Your task to perform on an android device: Open Reddit.com Image 0: 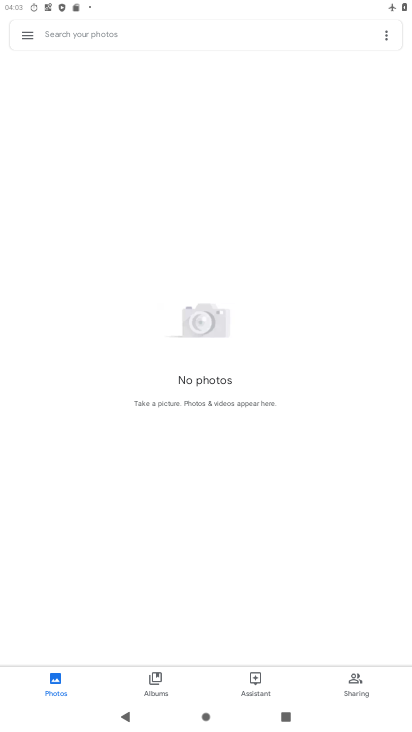
Step 0: press home button
Your task to perform on an android device: Open Reddit.com Image 1: 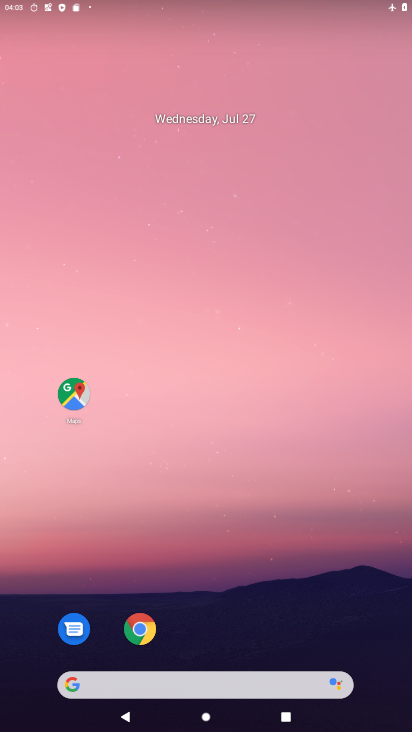
Step 1: drag from (260, 615) to (219, 79)
Your task to perform on an android device: Open Reddit.com Image 2: 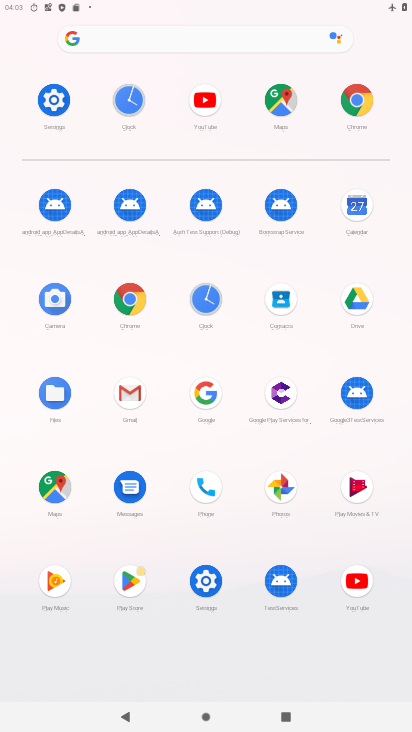
Step 2: click (134, 296)
Your task to perform on an android device: Open Reddit.com Image 3: 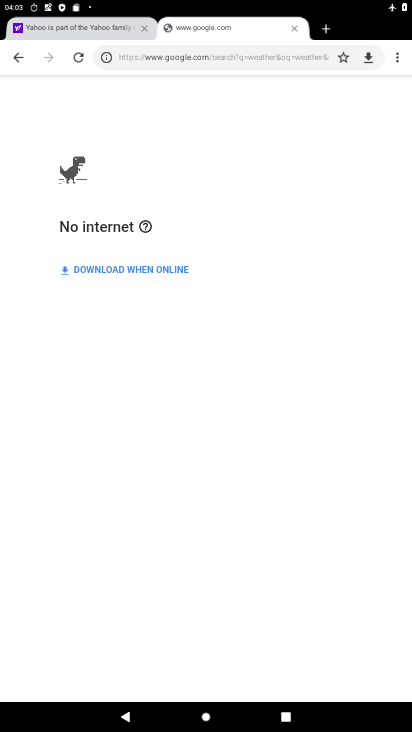
Step 3: click (212, 55)
Your task to perform on an android device: Open Reddit.com Image 4: 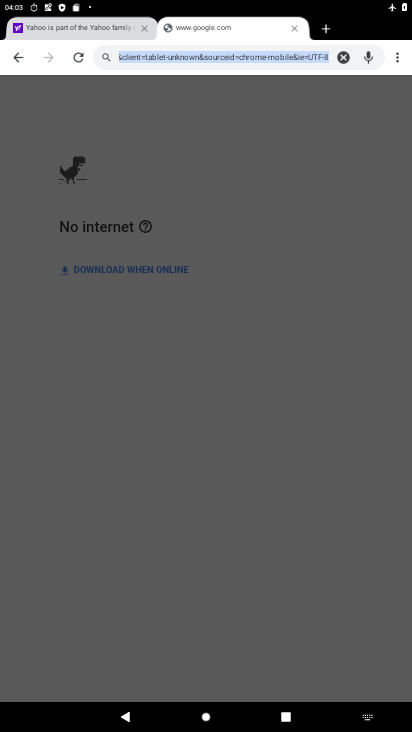
Step 4: type "reddit.com"
Your task to perform on an android device: Open Reddit.com Image 5: 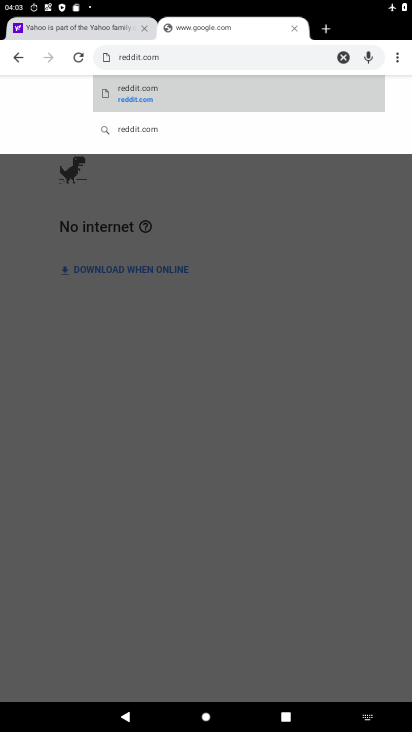
Step 5: click (140, 89)
Your task to perform on an android device: Open Reddit.com Image 6: 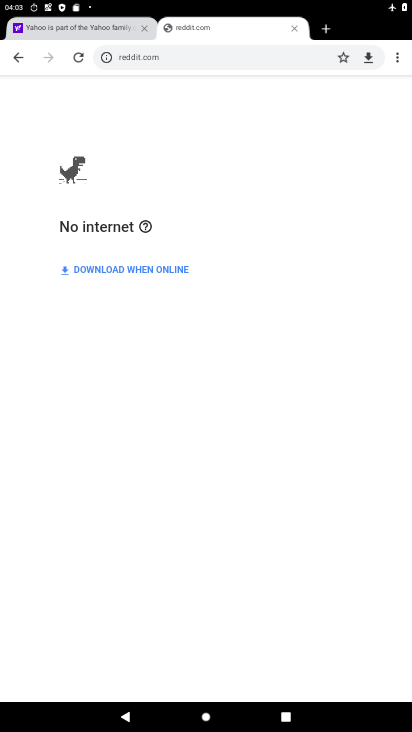
Step 6: task complete